Your task to perform on an android device: set the timer Image 0: 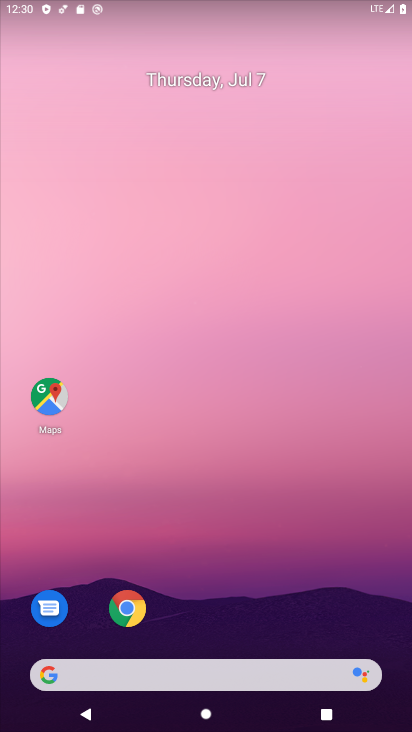
Step 0: drag from (177, 660) to (254, 100)
Your task to perform on an android device: set the timer Image 1: 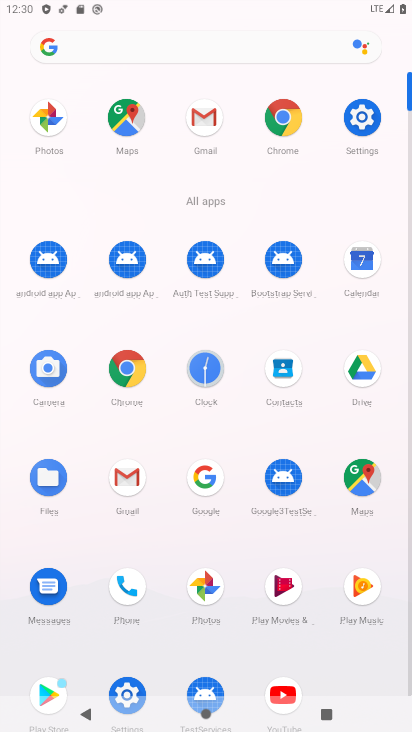
Step 1: click (200, 382)
Your task to perform on an android device: set the timer Image 2: 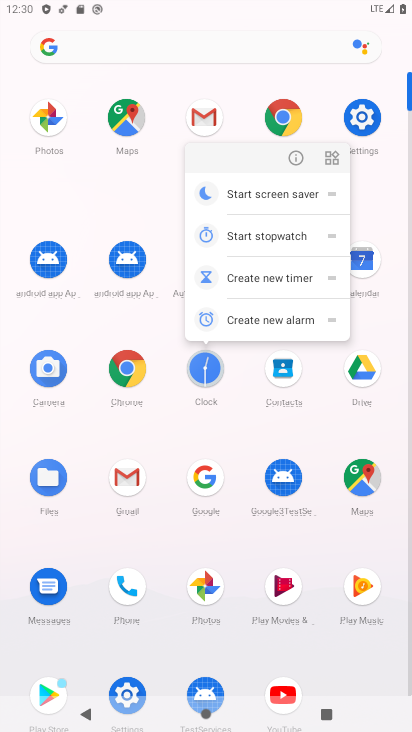
Step 2: click (199, 367)
Your task to perform on an android device: set the timer Image 3: 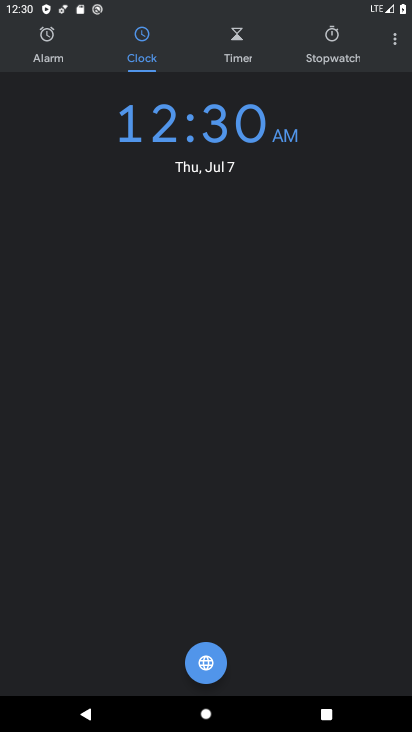
Step 3: click (260, 48)
Your task to perform on an android device: set the timer Image 4: 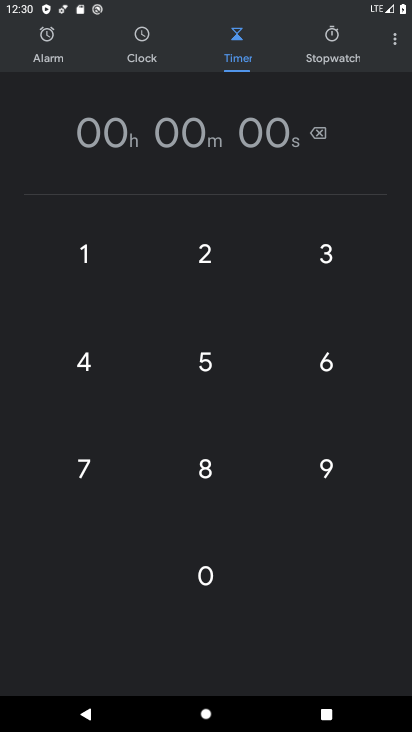
Step 4: click (209, 238)
Your task to perform on an android device: set the timer Image 5: 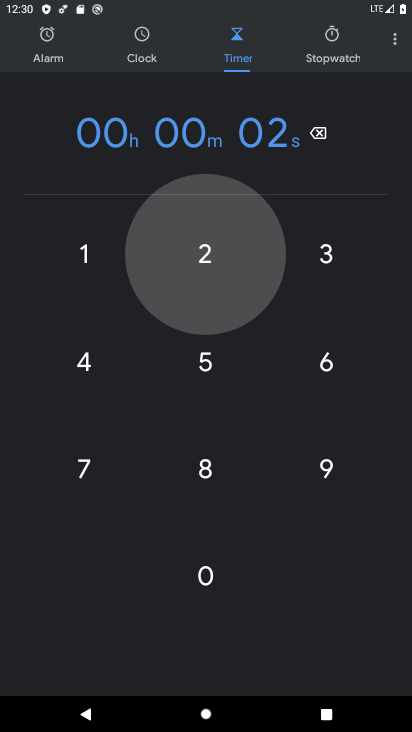
Step 5: click (213, 249)
Your task to perform on an android device: set the timer Image 6: 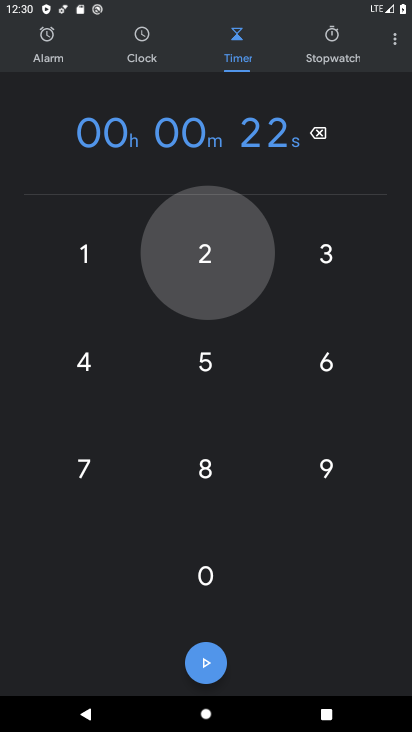
Step 6: click (213, 249)
Your task to perform on an android device: set the timer Image 7: 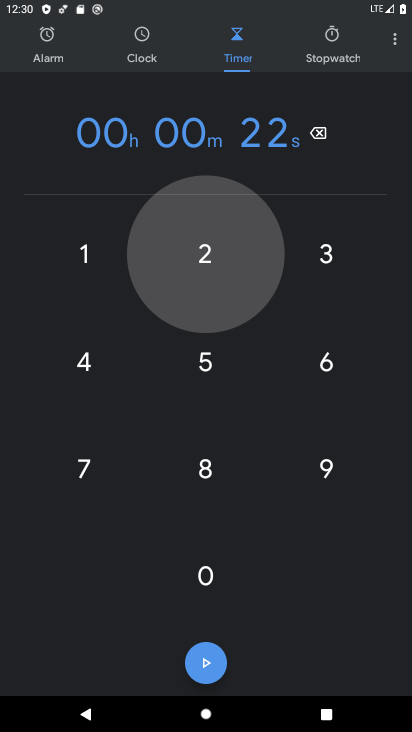
Step 7: click (213, 249)
Your task to perform on an android device: set the timer Image 8: 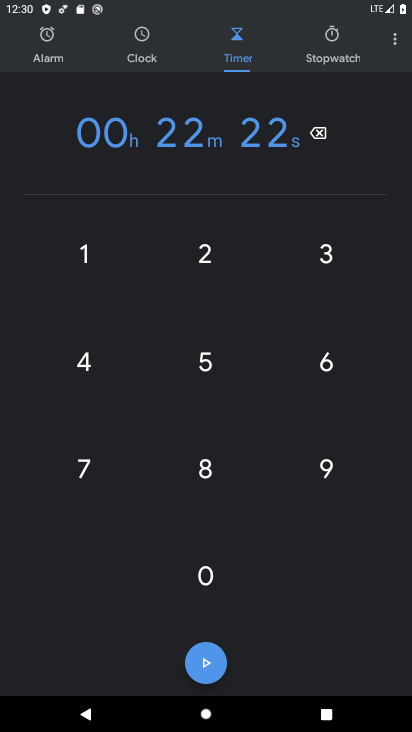
Step 8: click (199, 657)
Your task to perform on an android device: set the timer Image 9: 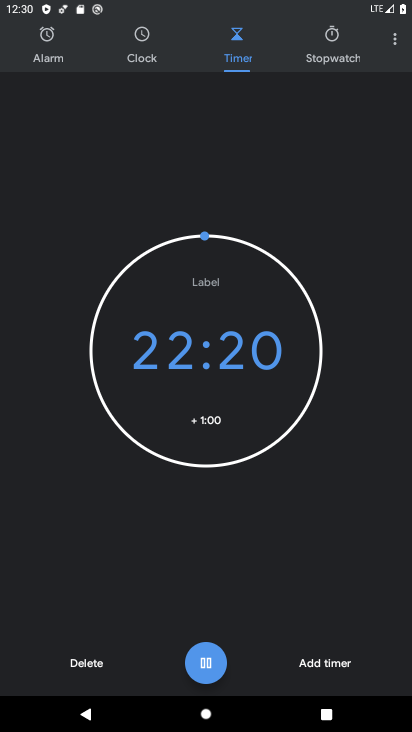
Step 9: task complete